Your task to perform on an android device: Show me popular videos on Youtube Image 0: 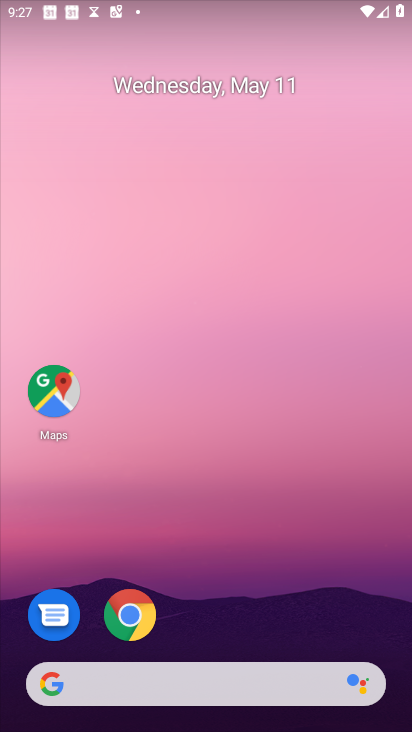
Step 0: press home button
Your task to perform on an android device: Show me popular videos on Youtube Image 1: 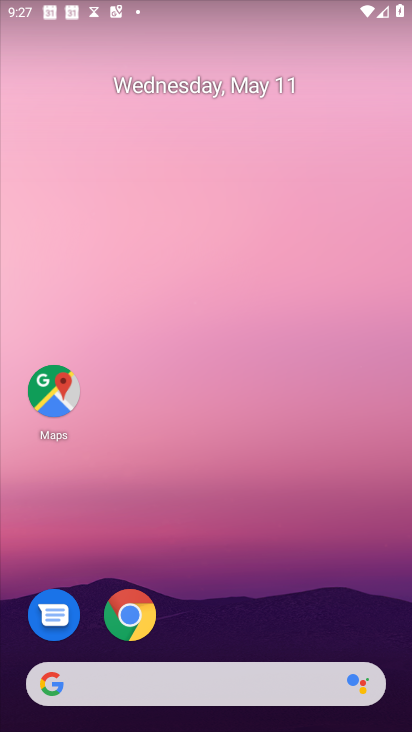
Step 1: drag from (9, 660) to (206, 116)
Your task to perform on an android device: Show me popular videos on Youtube Image 2: 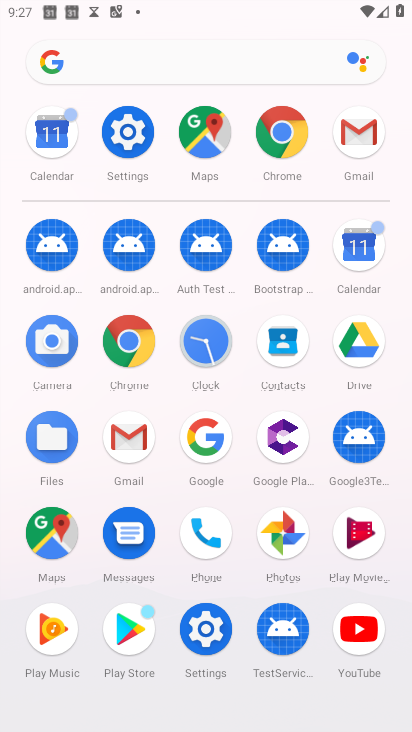
Step 2: click (372, 628)
Your task to perform on an android device: Show me popular videos on Youtube Image 3: 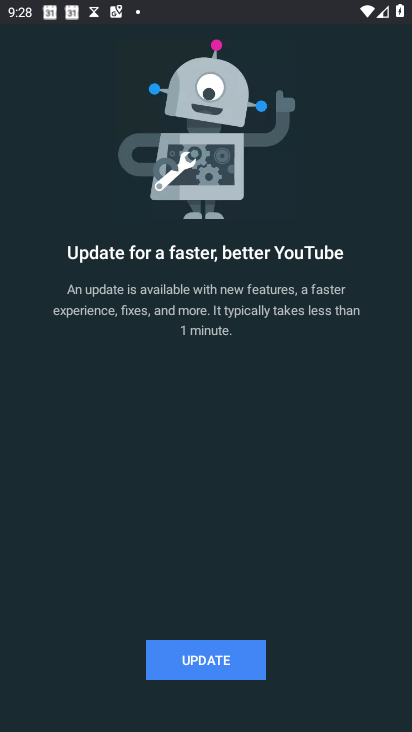
Step 3: task complete